Your task to perform on an android device: Open Chrome and go to settings Image 0: 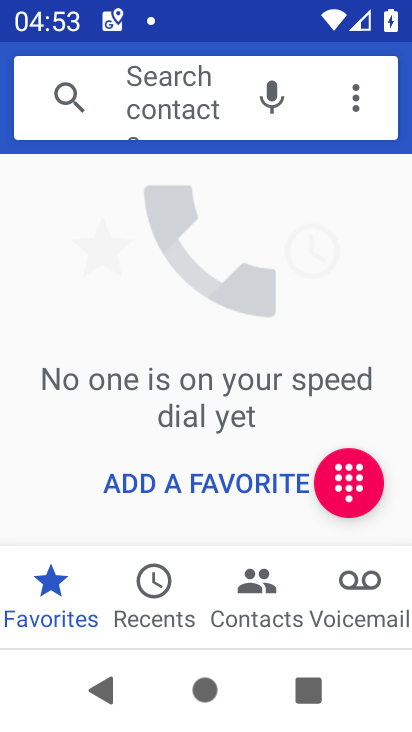
Step 0: press home button
Your task to perform on an android device: Open Chrome and go to settings Image 1: 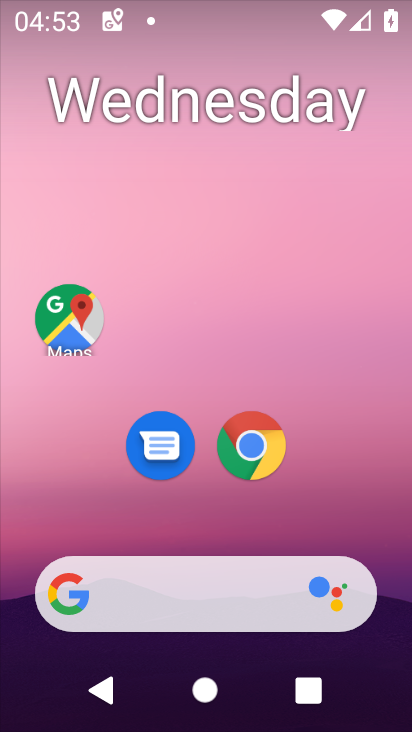
Step 1: click (247, 451)
Your task to perform on an android device: Open Chrome and go to settings Image 2: 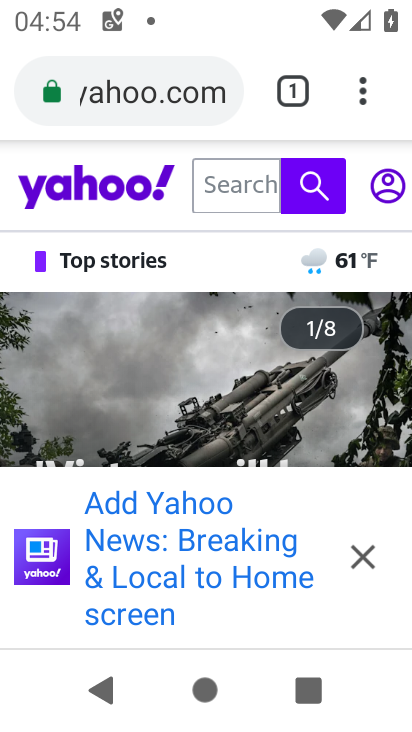
Step 2: click (366, 98)
Your task to perform on an android device: Open Chrome and go to settings Image 3: 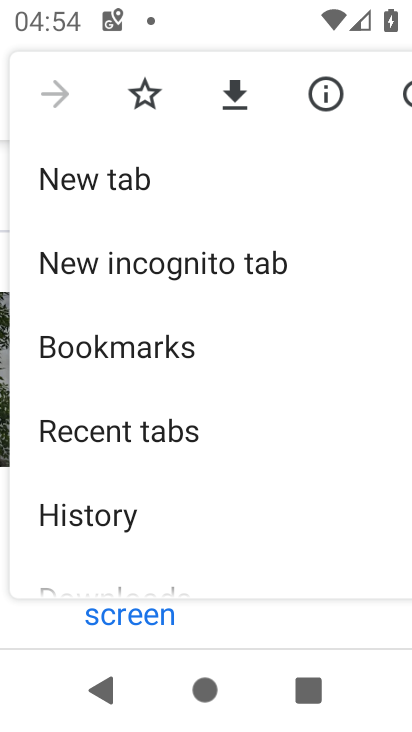
Step 3: drag from (117, 504) to (173, 241)
Your task to perform on an android device: Open Chrome and go to settings Image 4: 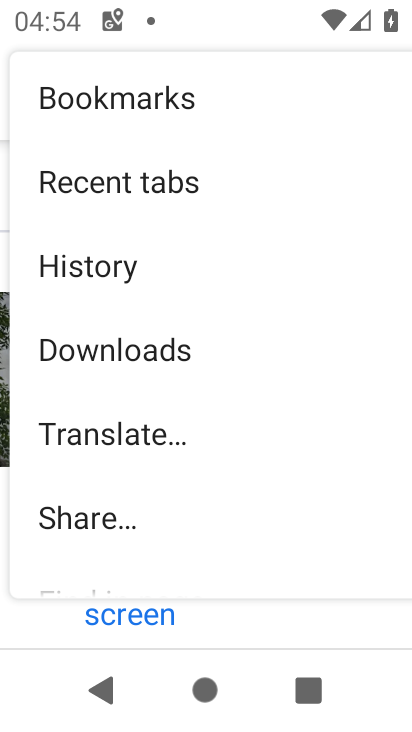
Step 4: drag from (139, 574) to (215, 146)
Your task to perform on an android device: Open Chrome and go to settings Image 5: 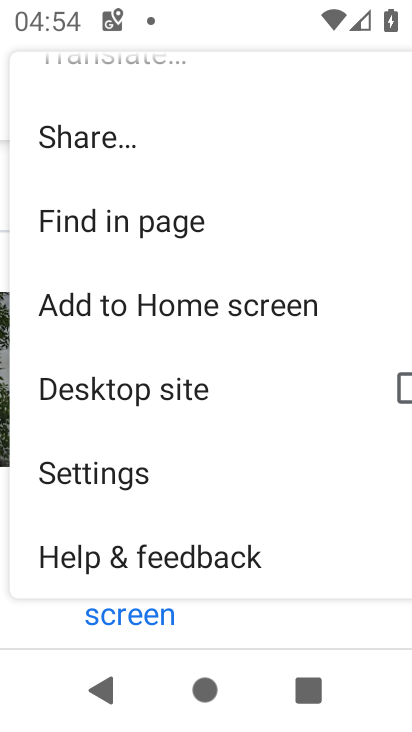
Step 5: click (121, 478)
Your task to perform on an android device: Open Chrome and go to settings Image 6: 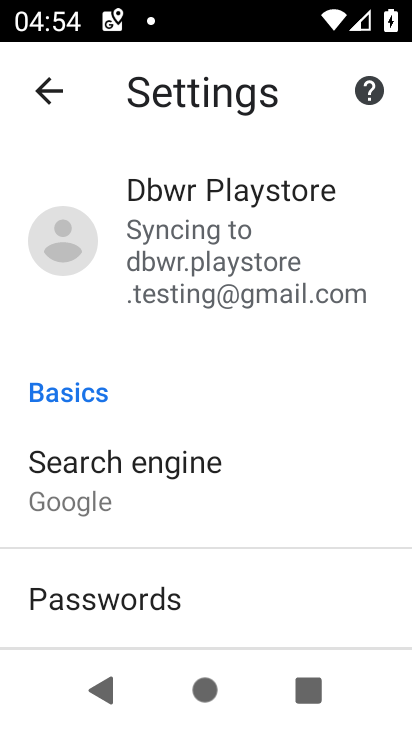
Step 6: task complete